Your task to perform on an android device: Show me recent news Image 0: 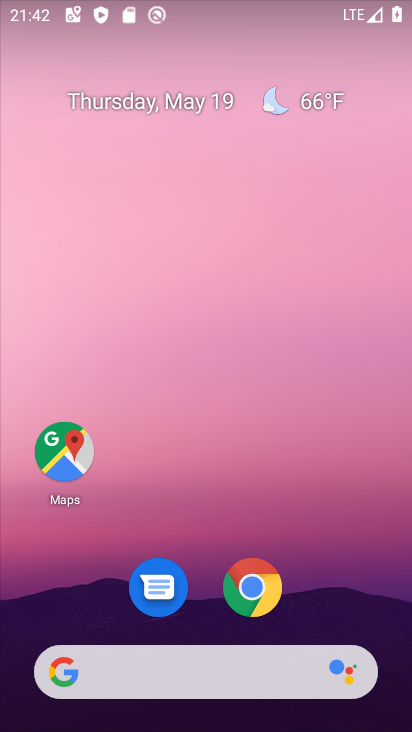
Step 0: drag from (262, 692) to (244, 49)
Your task to perform on an android device: Show me recent news Image 1: 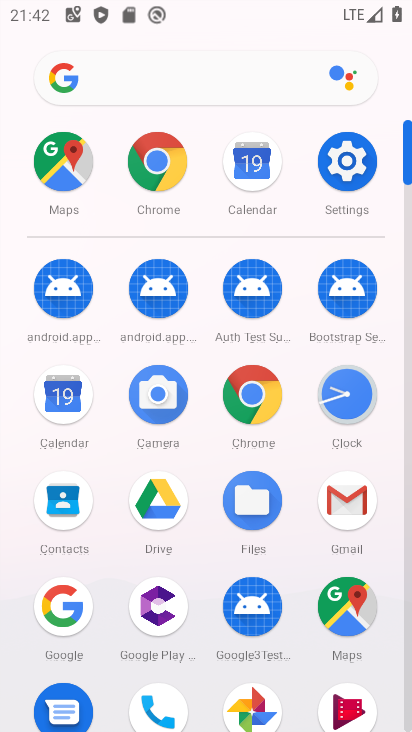
Step 1: click (163, 89)
Your task to perform on an android device: Show me recent news Image 2: 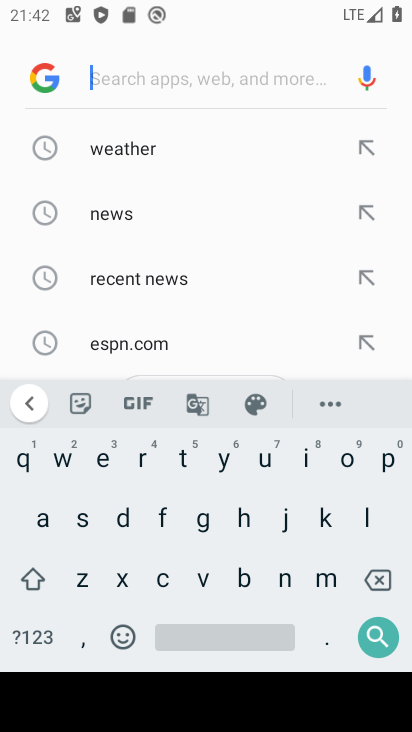
Step 2: click (153, 272)
Your task to perform on an android device: Show me recent news Image 3: 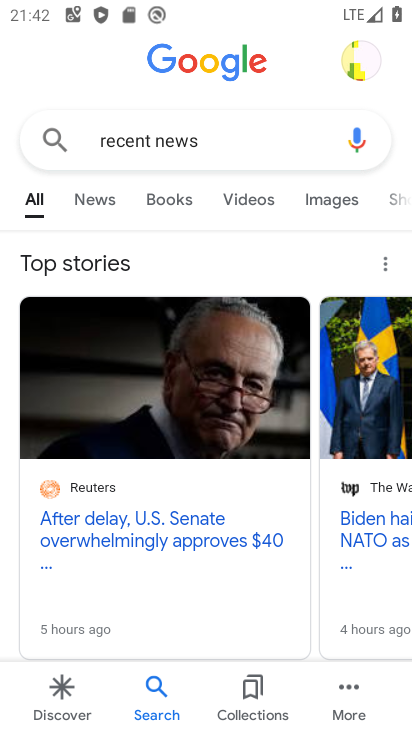
Step 3: task complete